Your task to perform on an android device: turn on translation in the chrome app Image 0: 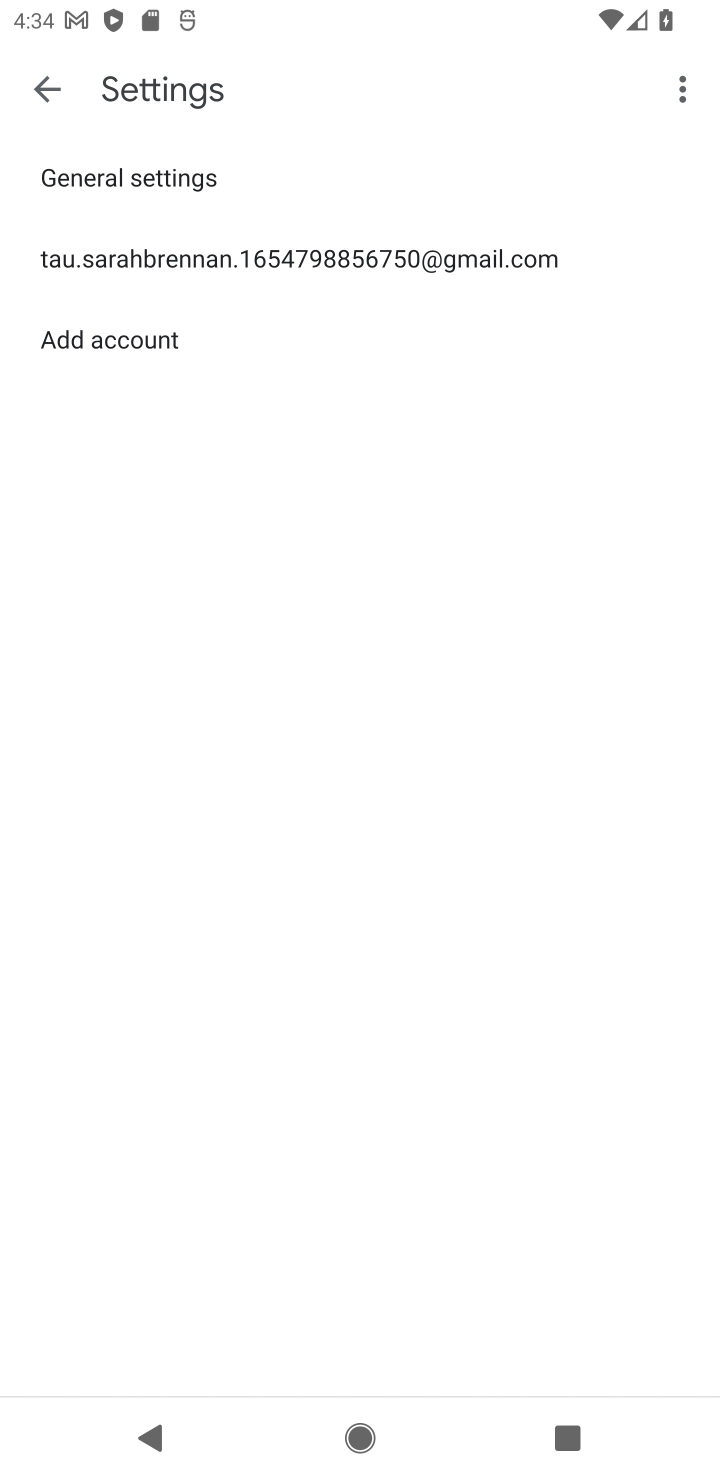
Step 0: press home button
Your task to perform on an android device: turn on translation in the chrome app Image 1: 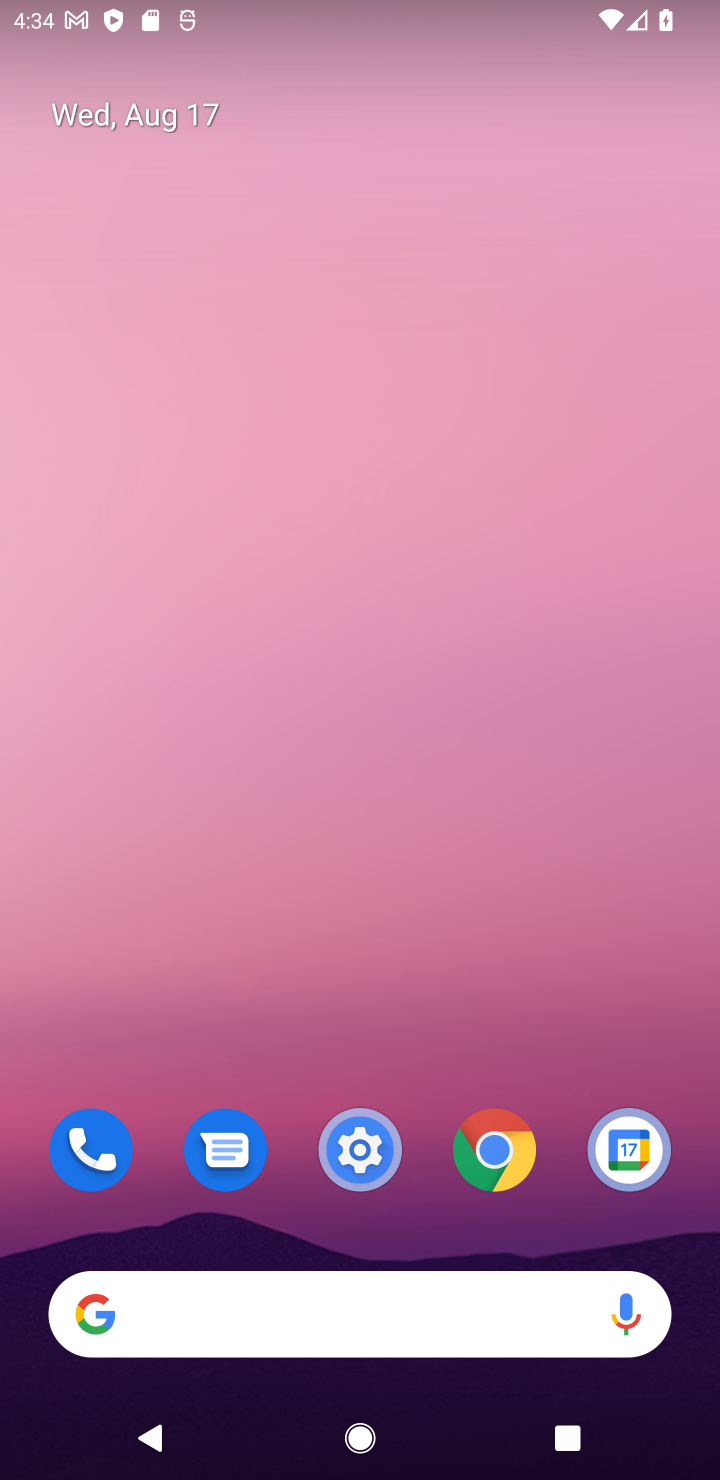
Step 1: drag from (665, 1257) to (261, 85)
Your task to perform on an android device: turn on translation in the chrome app Image 2: 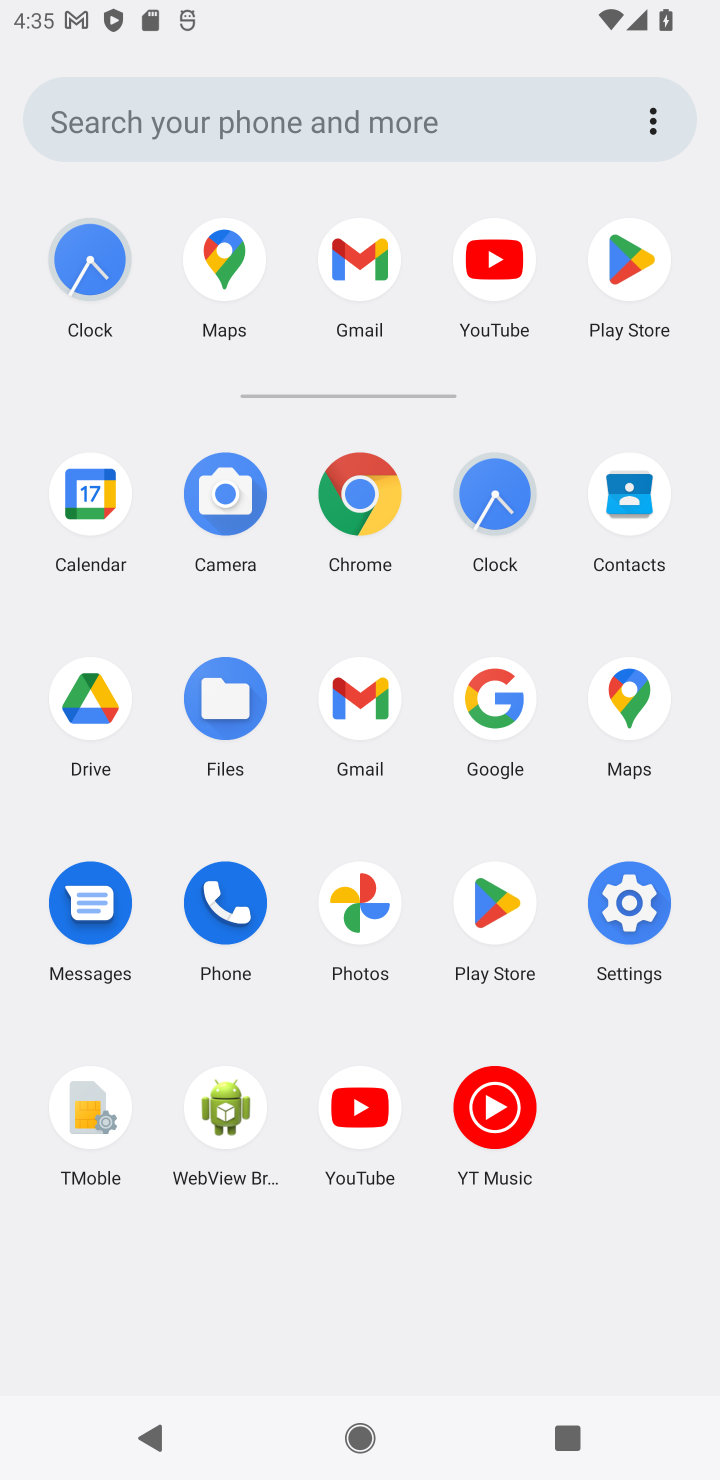
Step 2: click (350, 471)
Your task to perform on an android device: turn on translation in the chrome app Image 3: 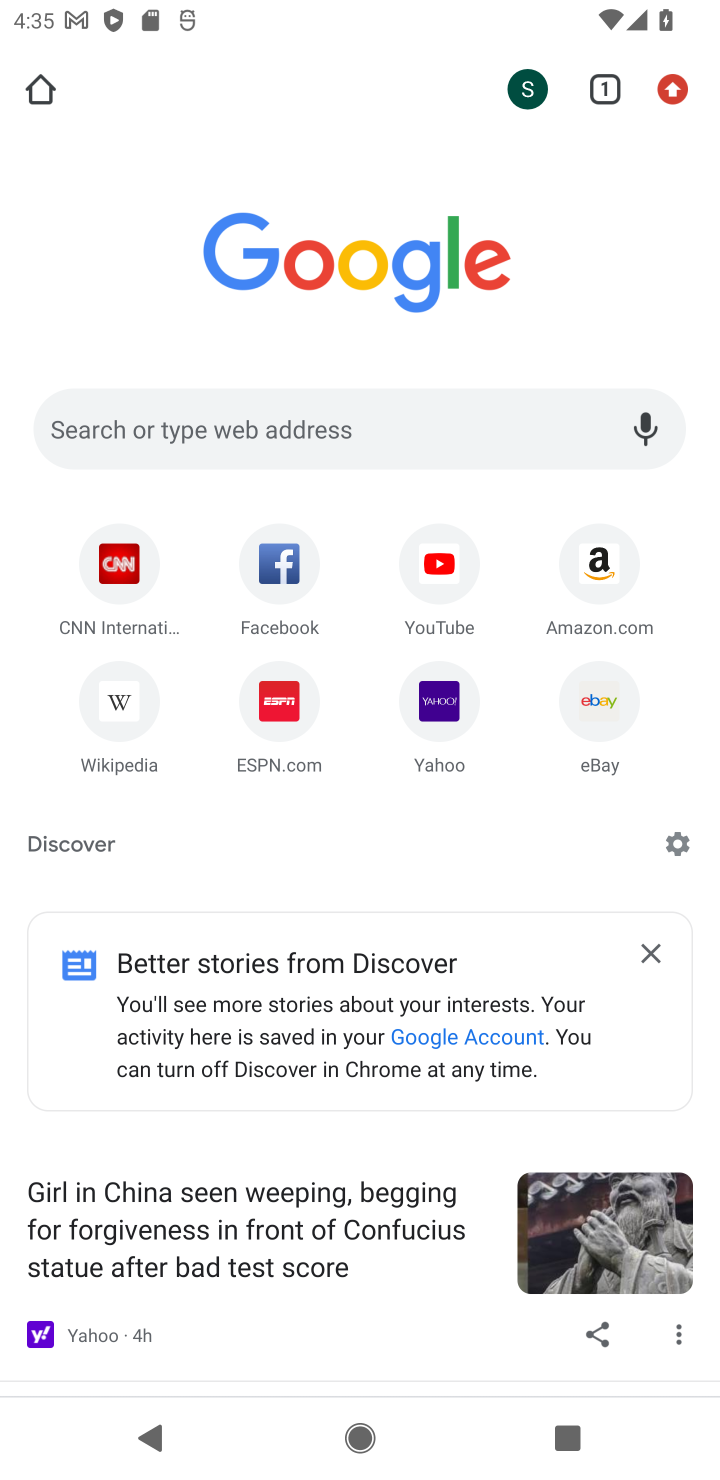
Step 3: click (667, 97)
Your task to perform on an android device: turn on translation in the chrome app Image 4: 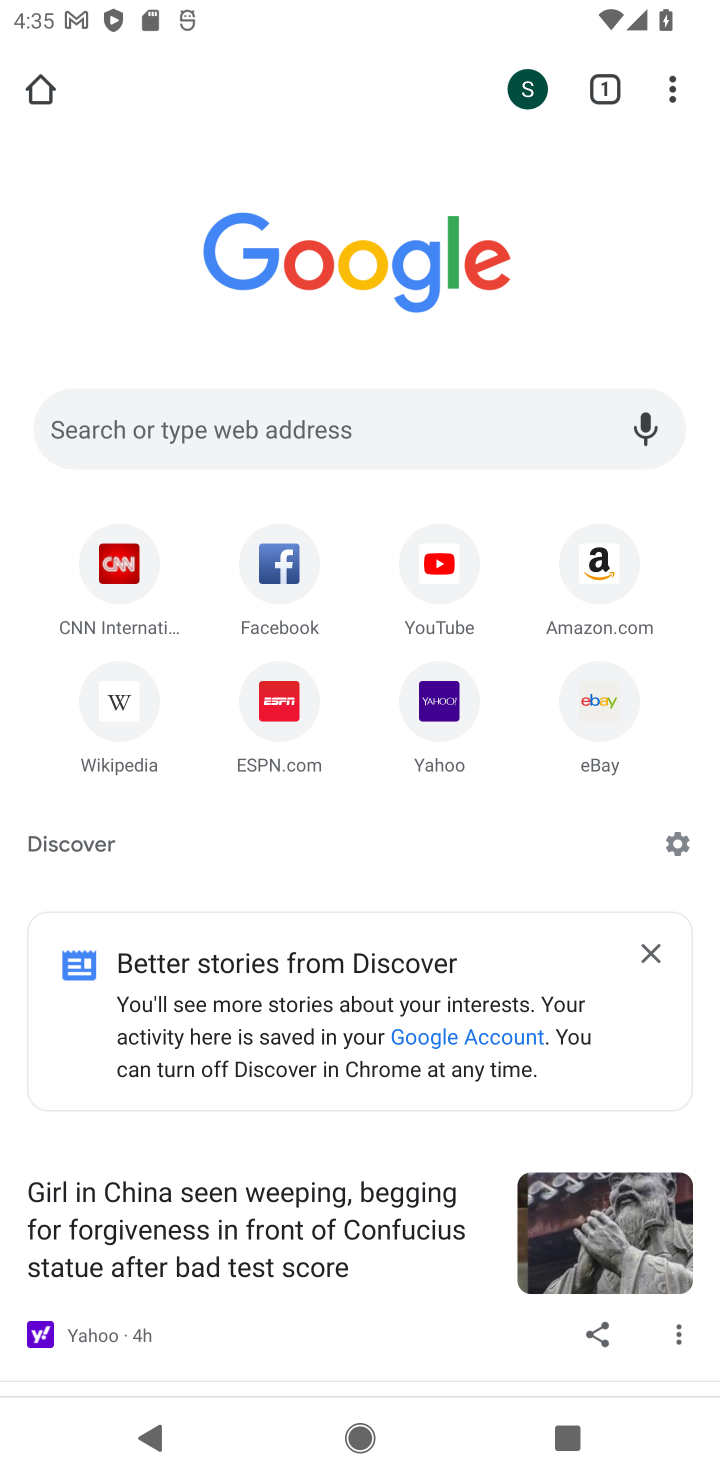
Step 4: click (667, 97)
Your task to perform on an android device: turn on translation in the chrome app Image 5: 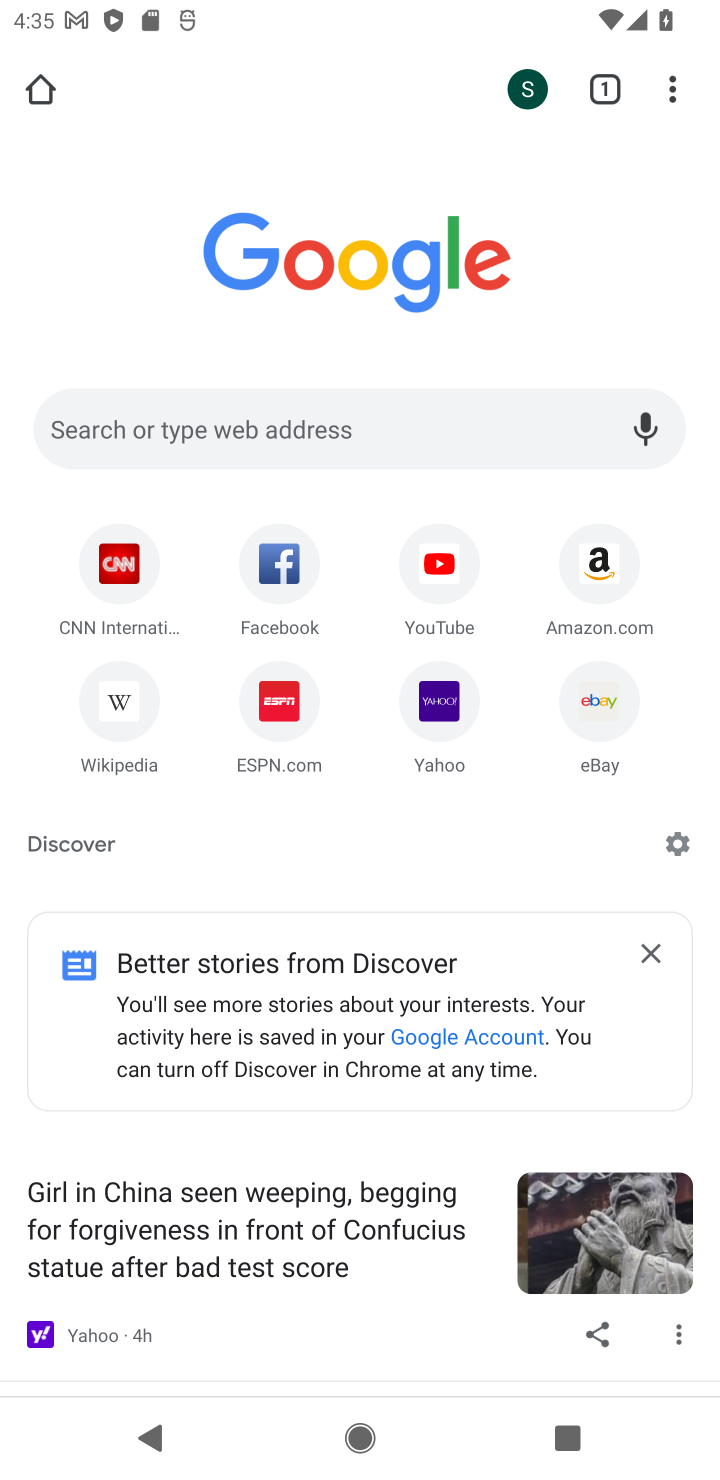
Step 5: click (669, 87)
Your task to perform on an android device: turn on translation in the chrome app Image 6: 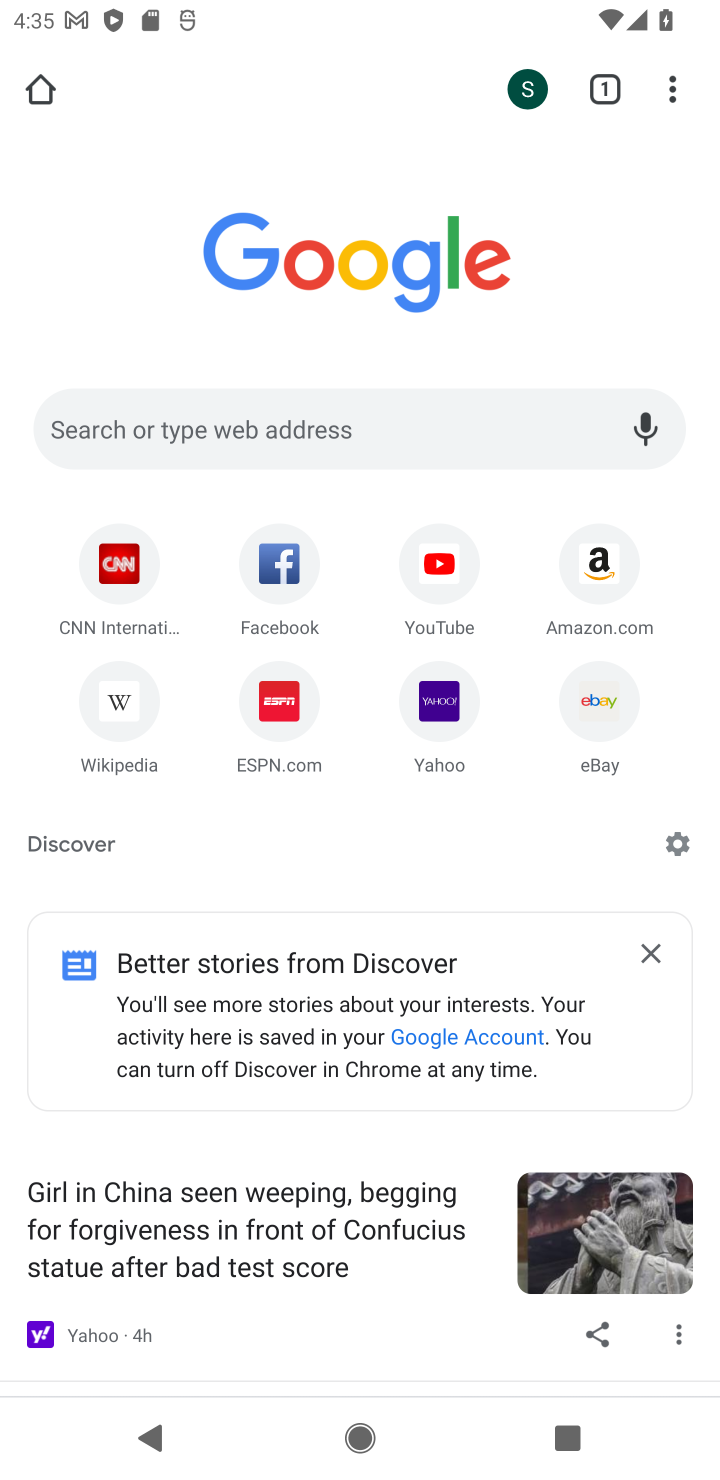
Step 6: click (667, 93)
Your task to perform on an android device: turn on translation in the chrome app Image 7: 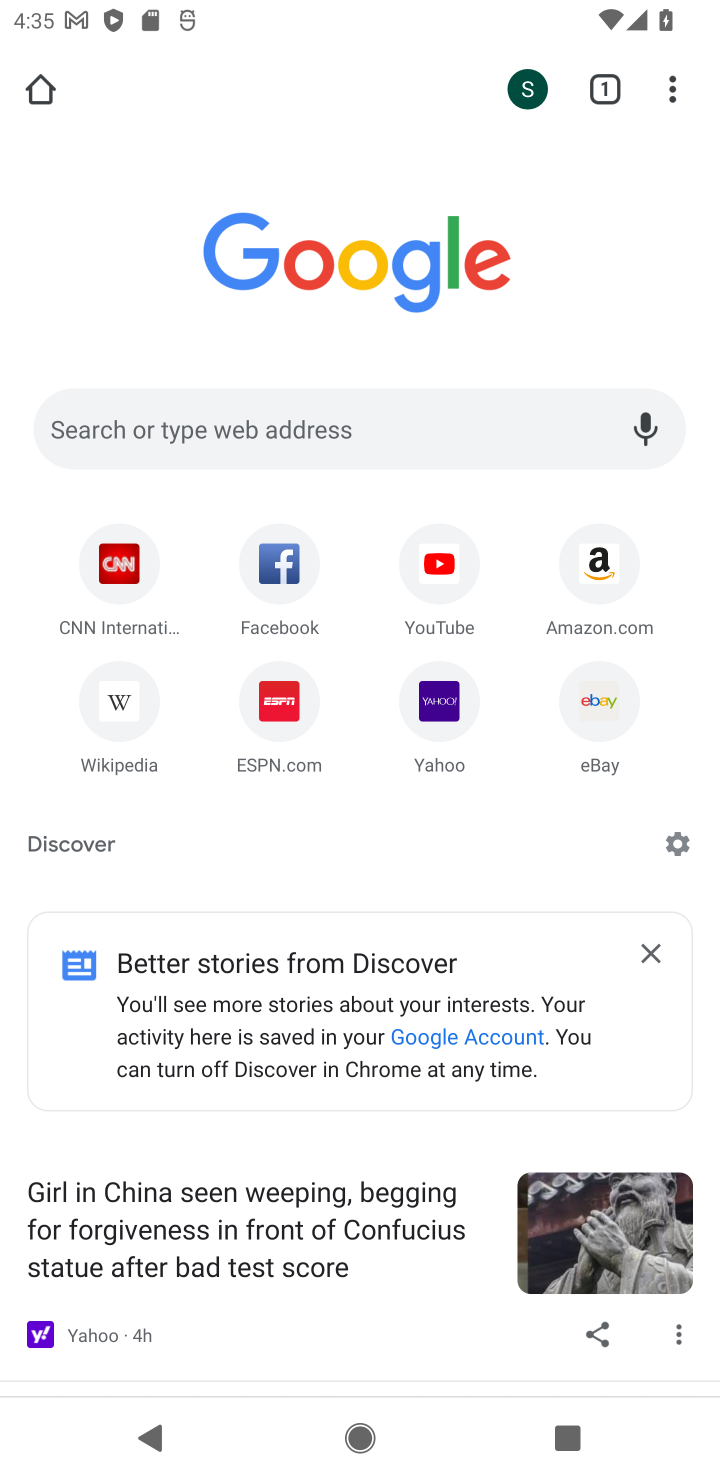
Step 7: click (667, 93)
Your task to perform on an android device: turn on translation in the chrome app Image 8: 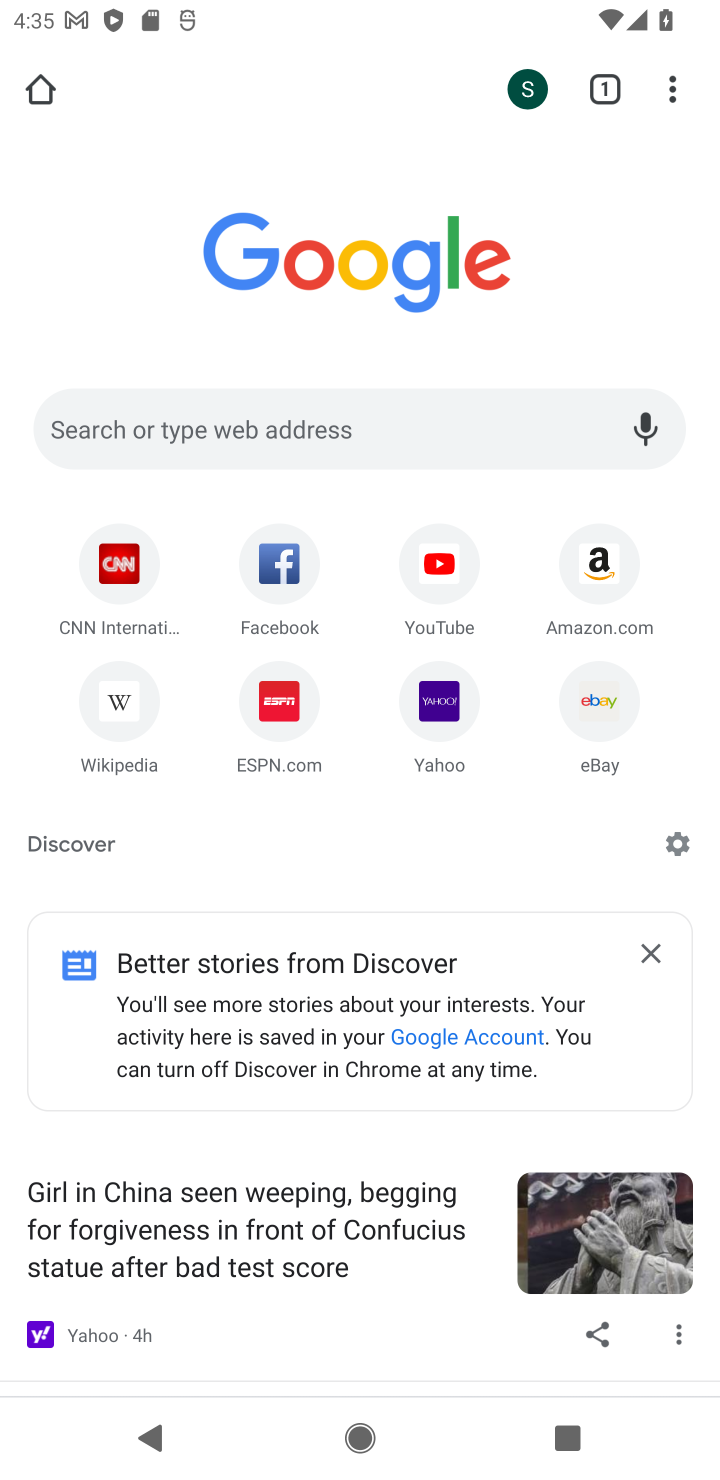
Step 8: click (661, 94)
Your task to perform on an android device: turn on translation in the chrome app Image 9: 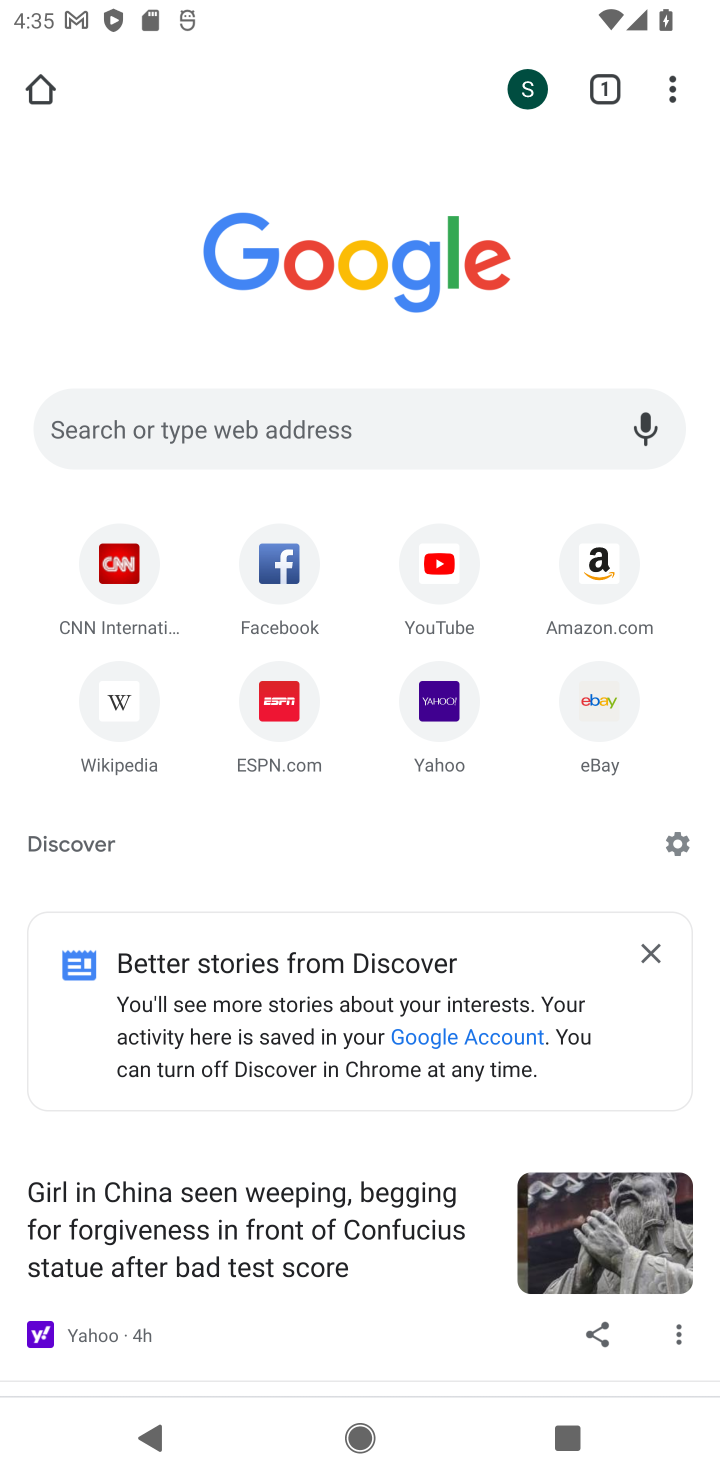
Step 9: click (671, 77)
Your task to perform on an android device: turn on translation in the chrome app Image 10: 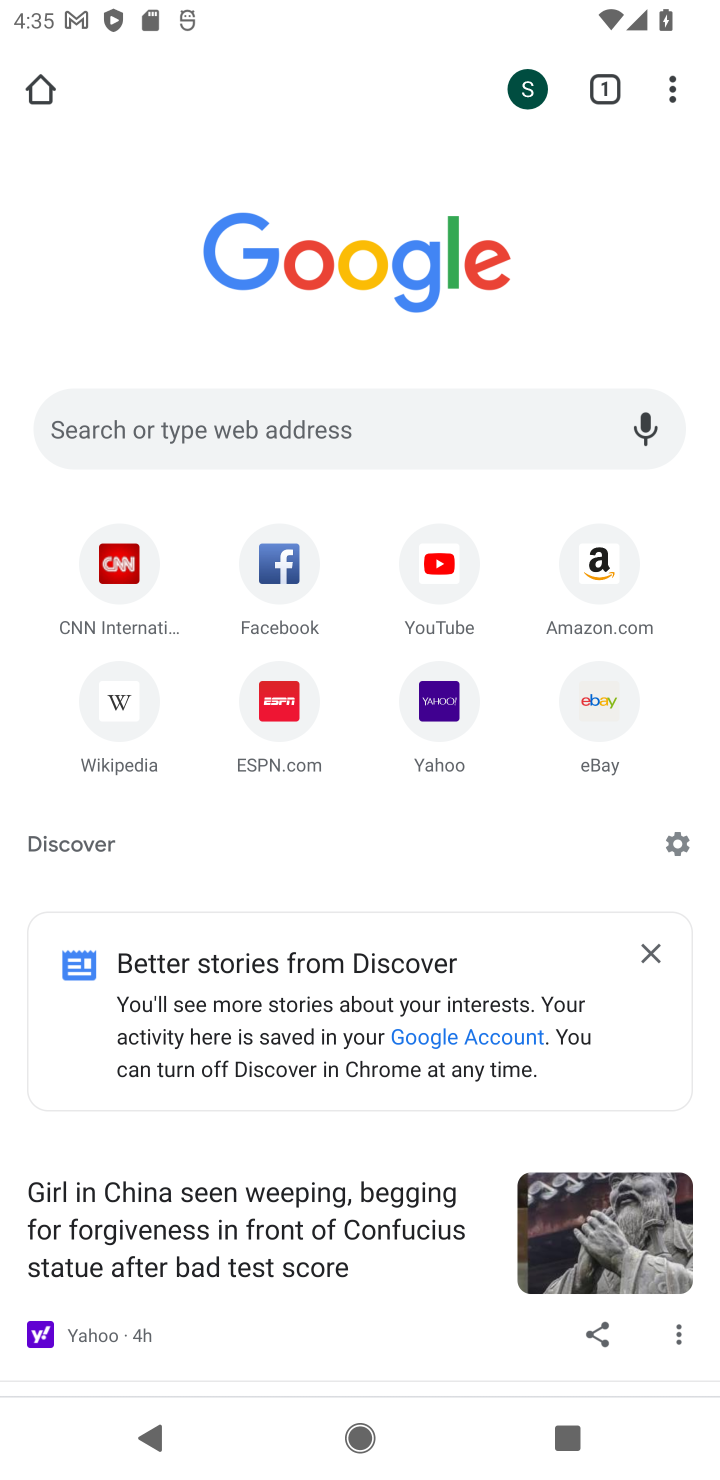
Step 10: click (671, 90)
Your task to perform on an android device: turn on translation in the chrome app Image 11: 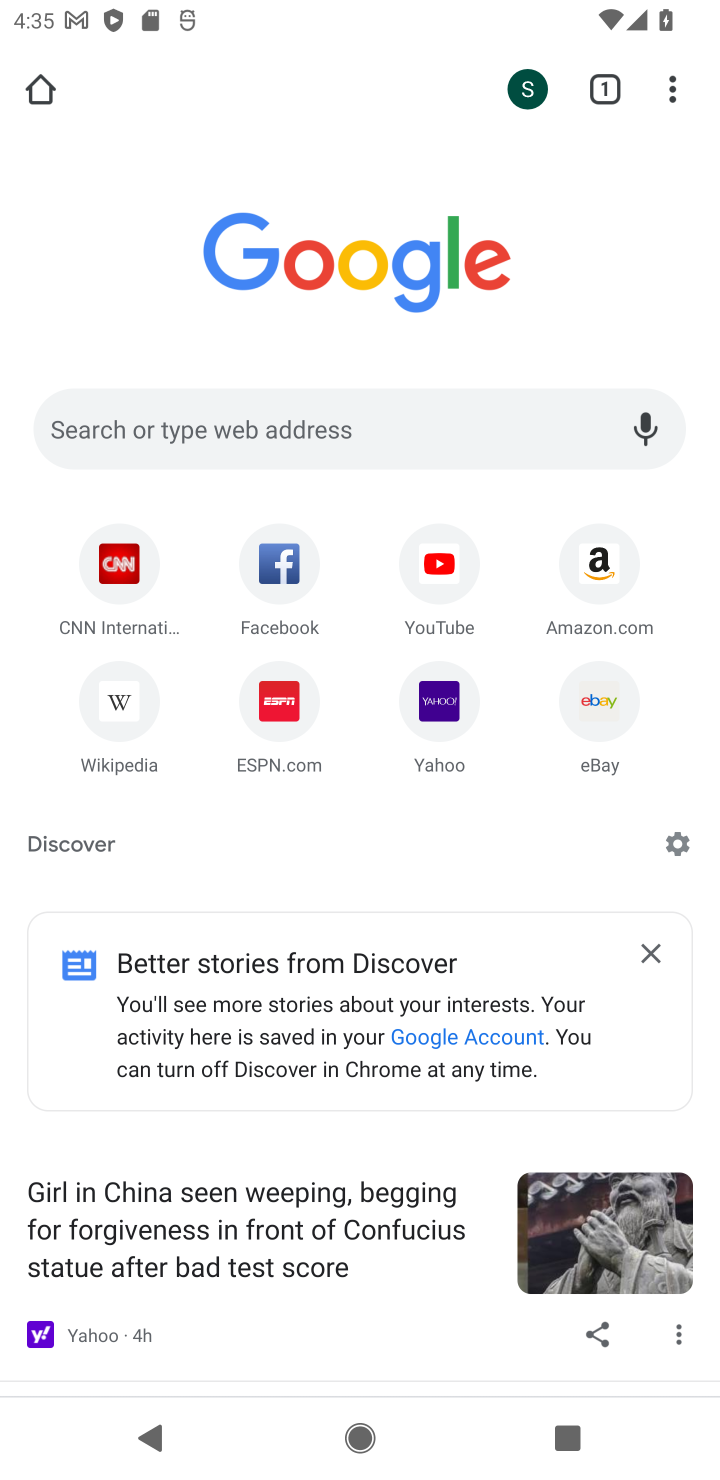
Step 11: click (671, 90)
Your task to perform on an android device: turn on translation in the chrome app Image 12: 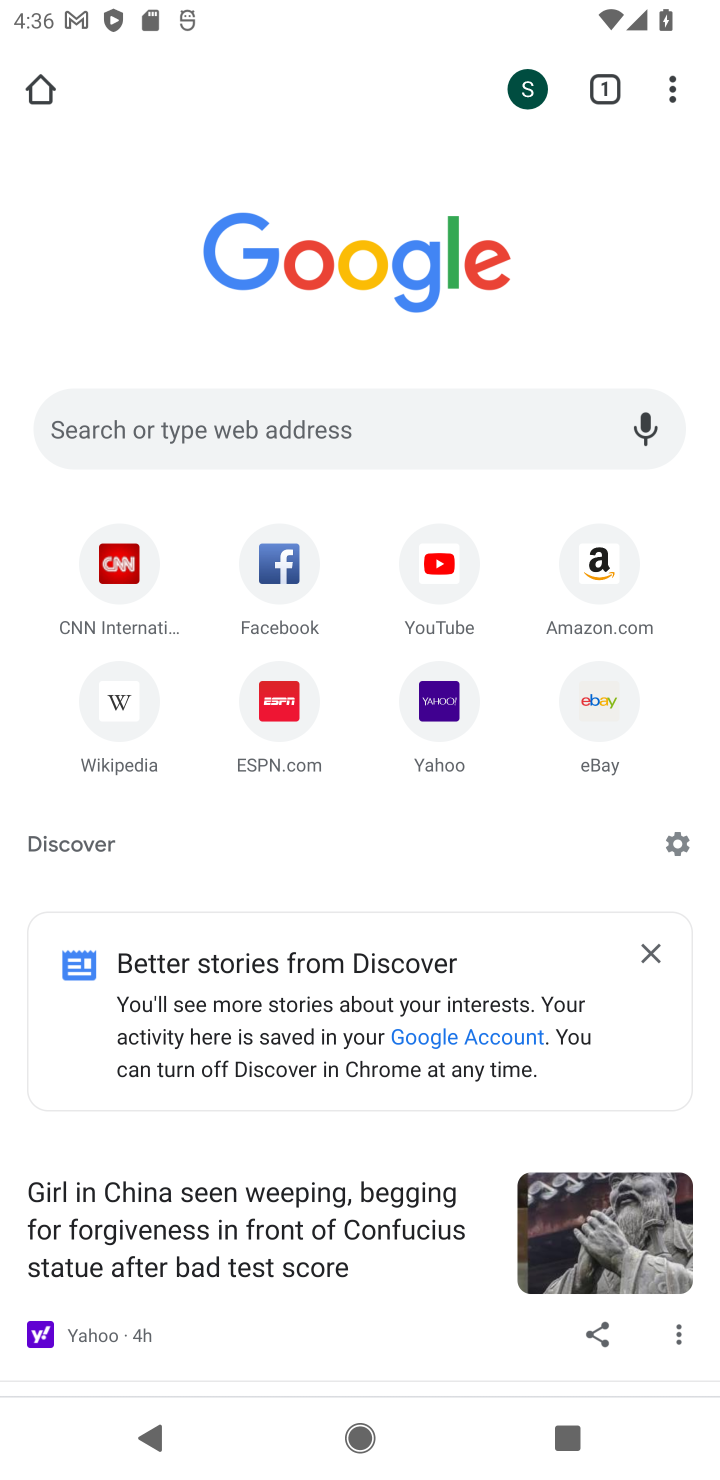
Step 12: click (671, 90)
Your task to perform on an android device: turn on translation in the chrome app Image 13: 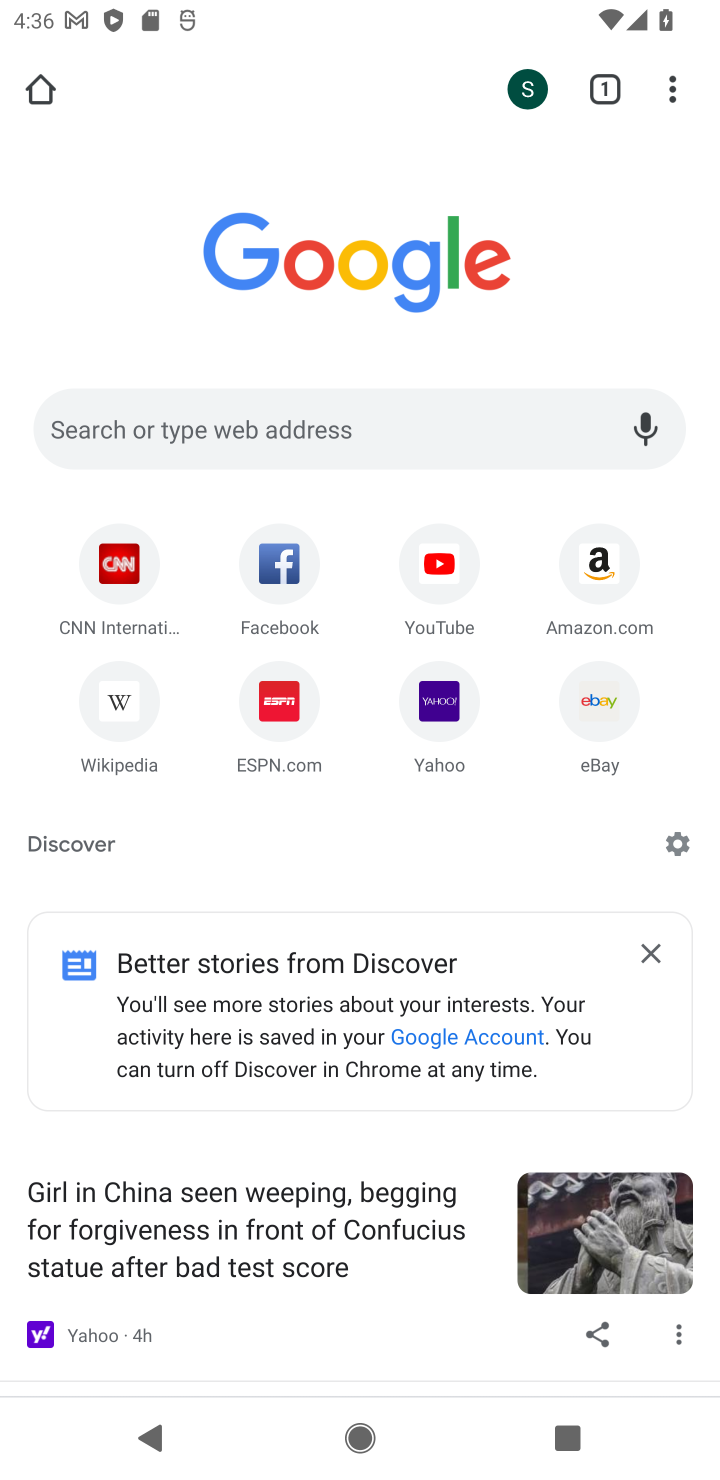
Step 13: click (671, 90)
Your task to perform on an android device: turn on translation in the chrome app Image 14: 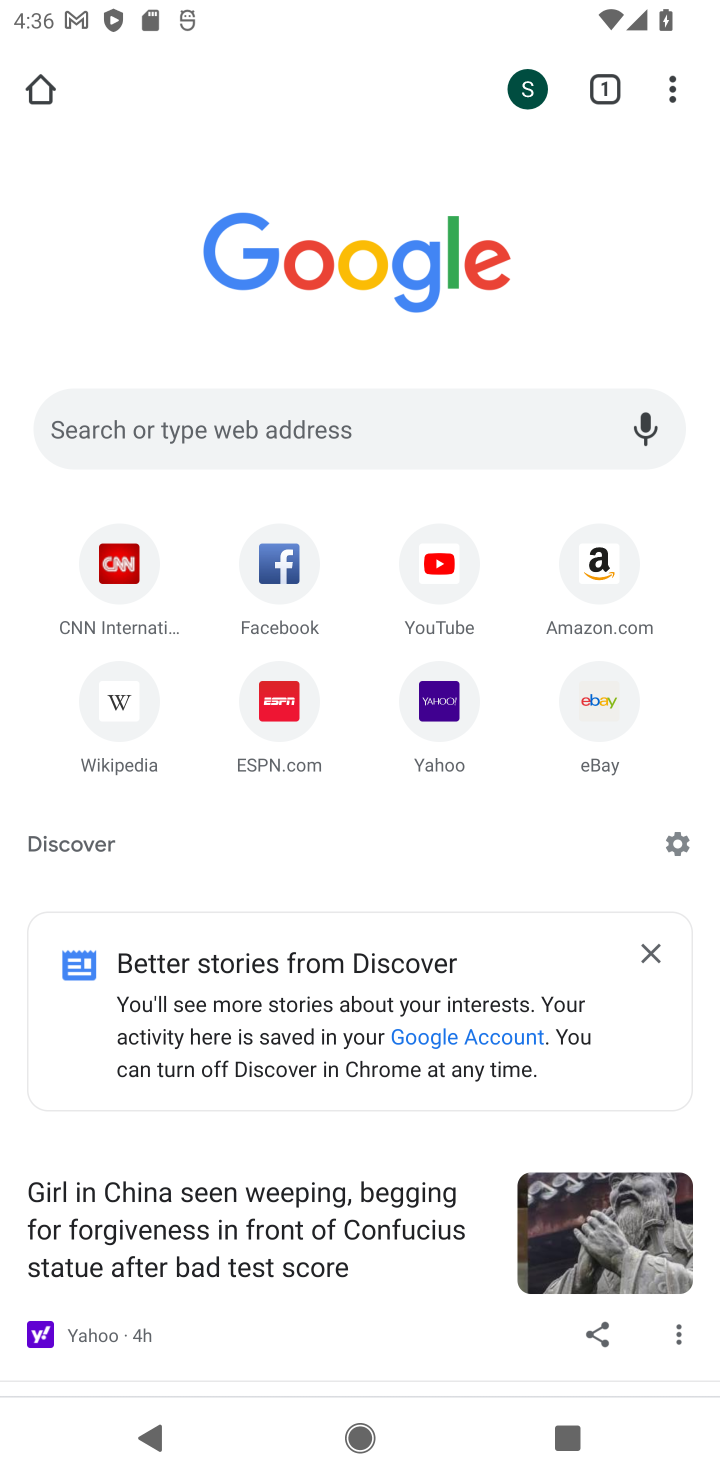
Step 14: click (668, 85)
Your task to perform on an android device: turn on translation in the chrome app Image 15: 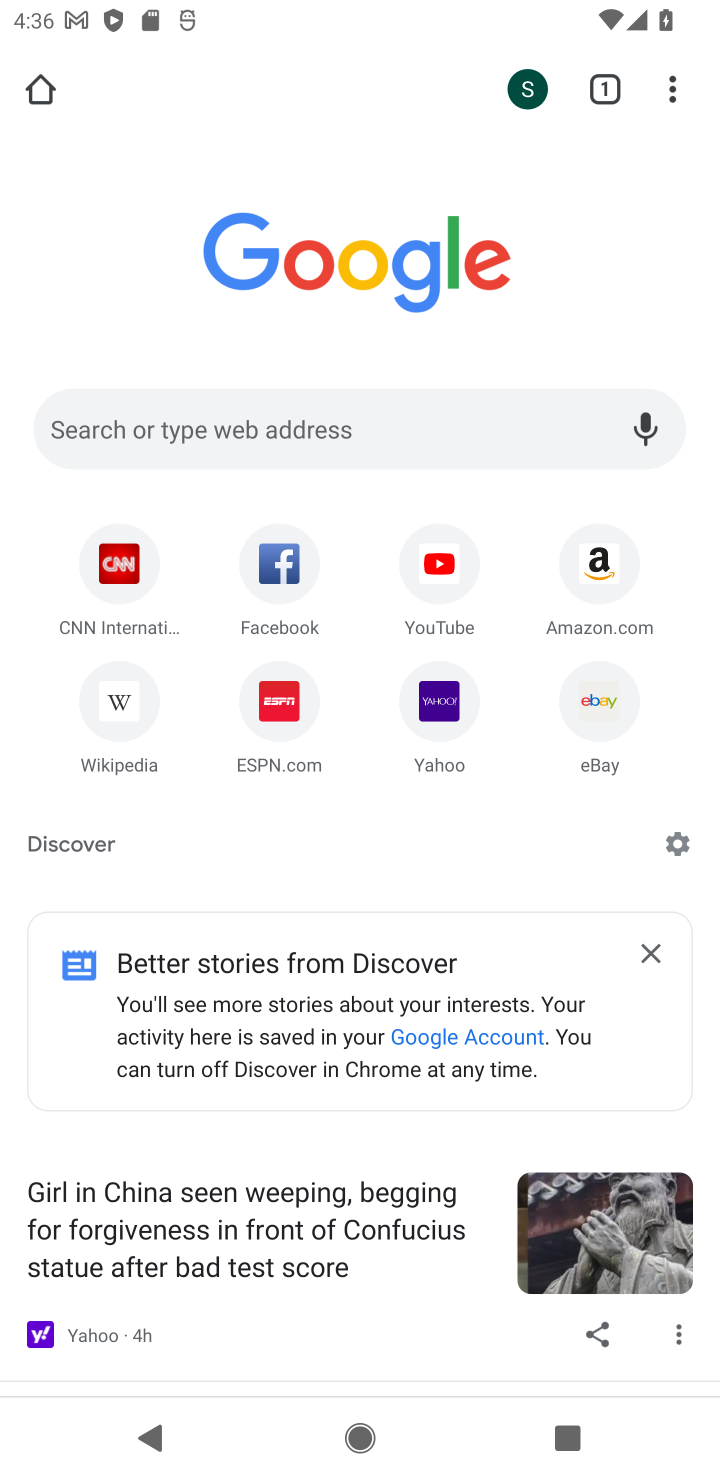
Step 15: task complete